Your task to perform on an android device: turn on data saver in the chrome app Image 0: 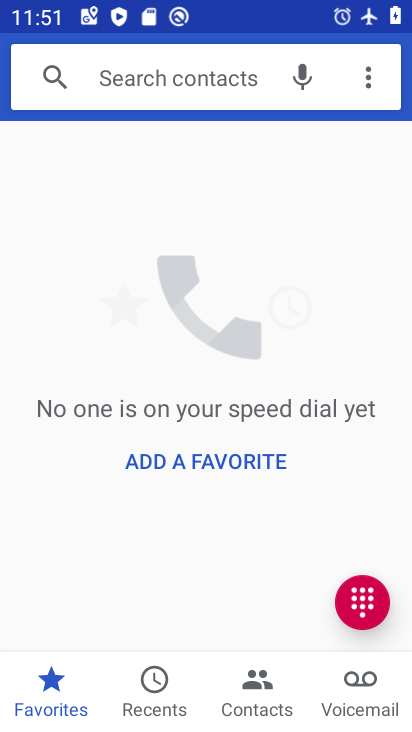
Step 0: press home button
Your task to perform on an android device: turn on data saver in the chrome app Image 1: 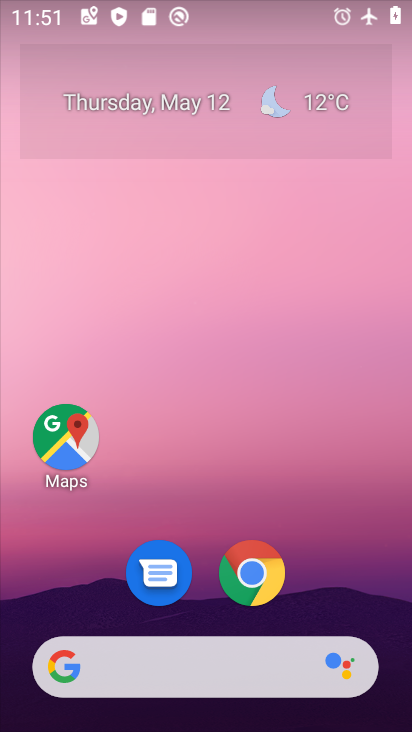
Step 1: click (243, 561)
Your task to perform on an android device: turn on data saver in the chrome app Image 2: 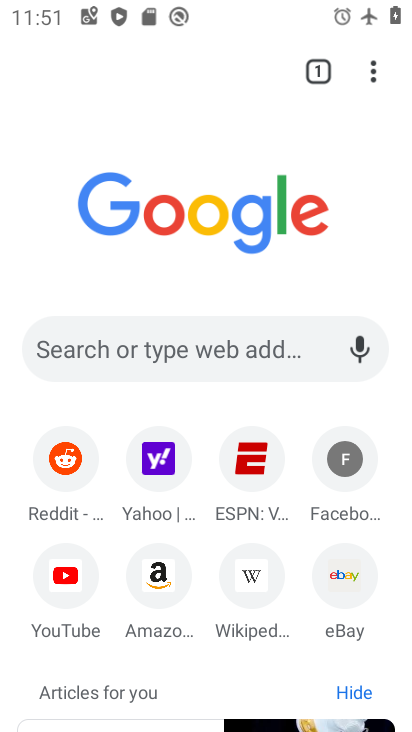
Step 2: click (375, 68)
Your task to perform on an android device: turn on data saver in the chrome app Image 3: 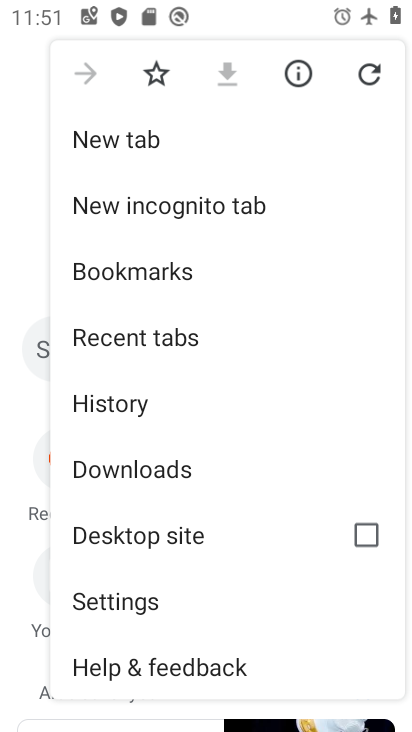
Step 3: click (135, 604)
Your task to perform on an android device: turn on data saver in the chrome app Image 4: 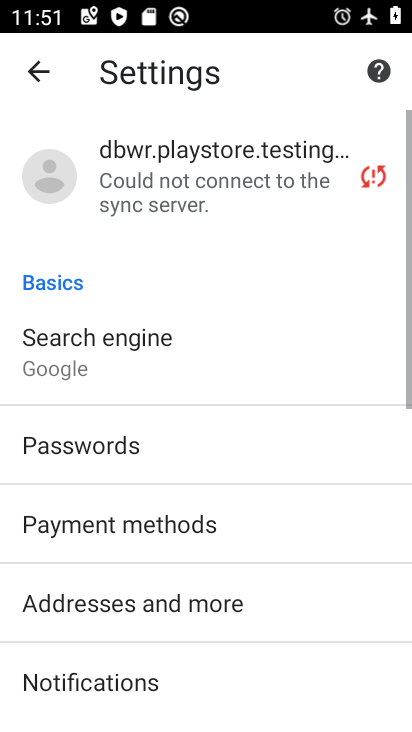
Step 4: drag from (247, 647) to (223, 119)
Your task to perform on an android device: turn on data saver in the chrome app Image 5: 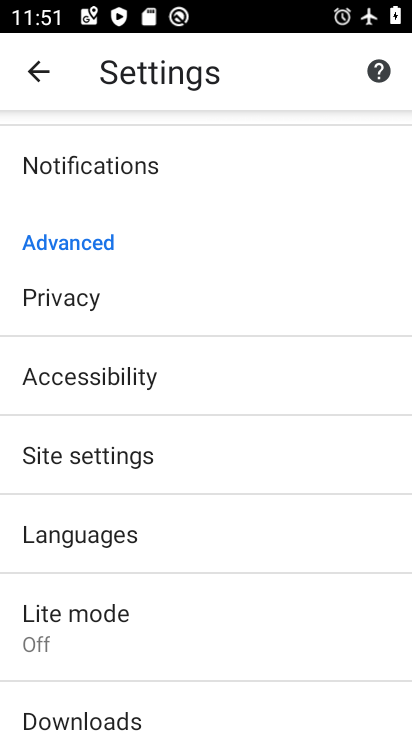
Step 5: click (208, 585)
Your task to perform on an android device: turn on data saver in the chrome app Image 6: 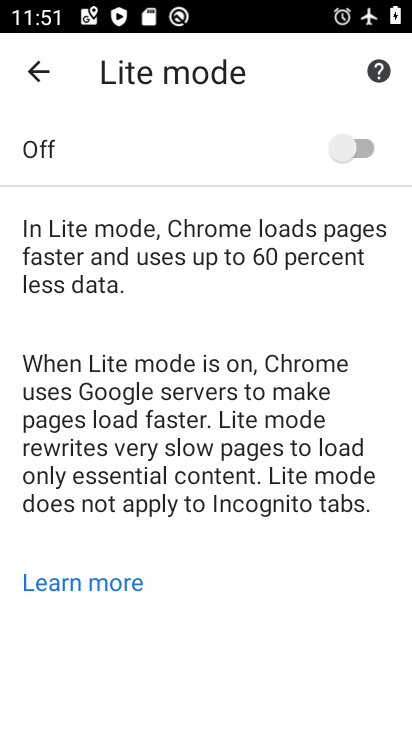
Step 6: click (357, 148)
Your task to perform on an android device: turn on data saver in the chrome app Image 7: 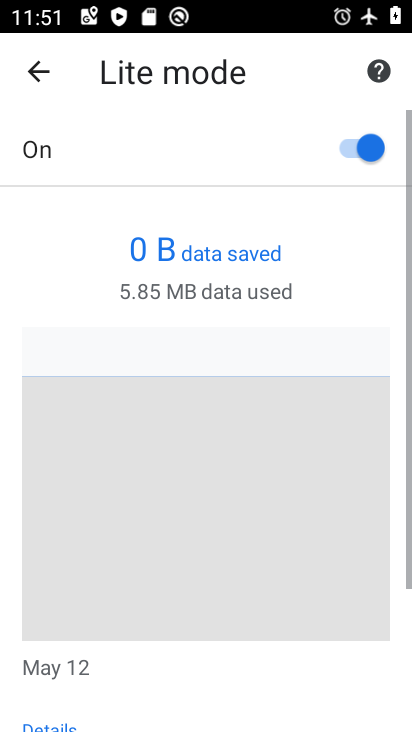
Step 7: task complete